Your task to perform on an android device: Search for Italian restaurants on Maps Image 0: 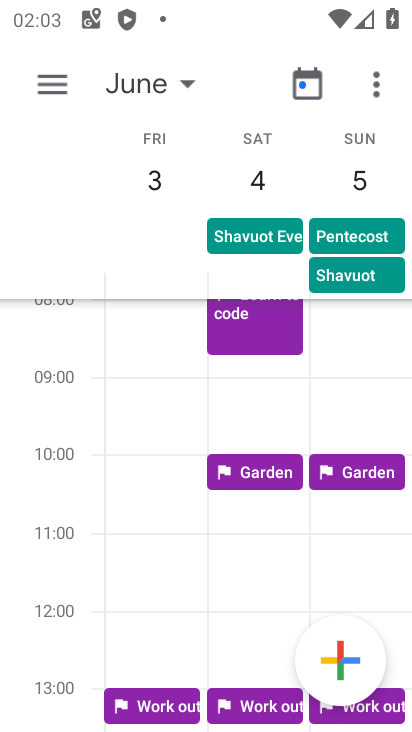
Step 0: press home button
Your task to perform on an android device: Search for Italian restaurants on Maps Image 1: 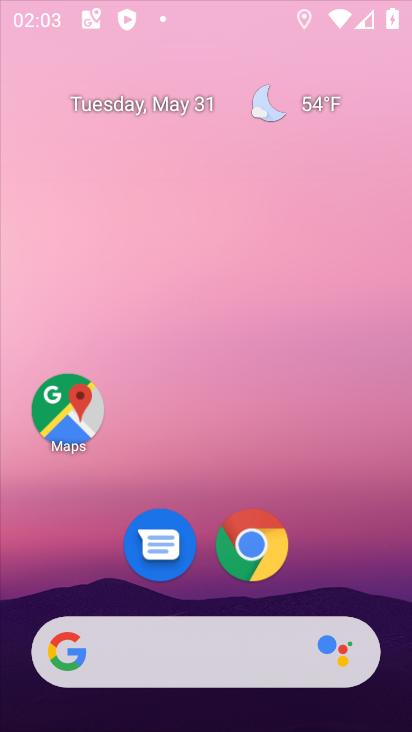
Step 1: press home button
Your task to perform on an android device: Search for Italian restaurants on Maps Image 2: 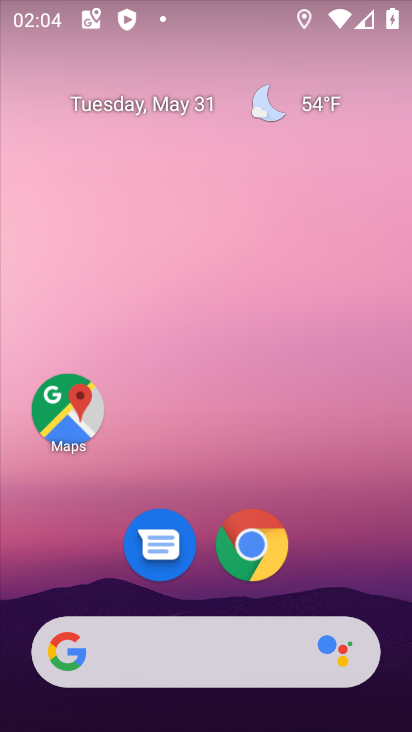
Step 2: click (61, 438)
Your task to perform on an android device: Search for Italian restaurants on Maps Image 3: 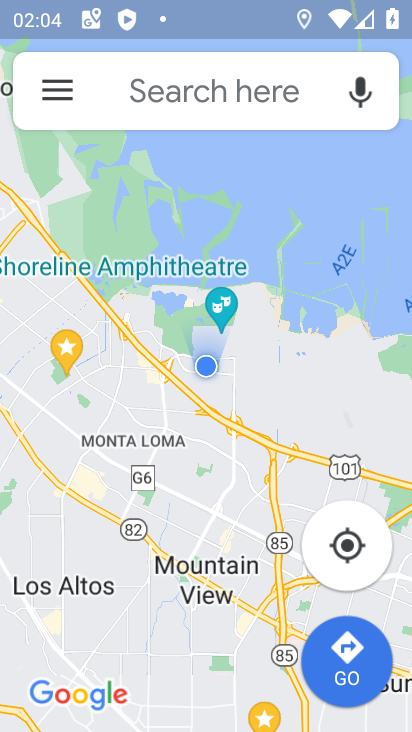
Step 3: click (205, 97)
Your task to perform on an android device: Search for Italian restaurants on Maps Image 4: 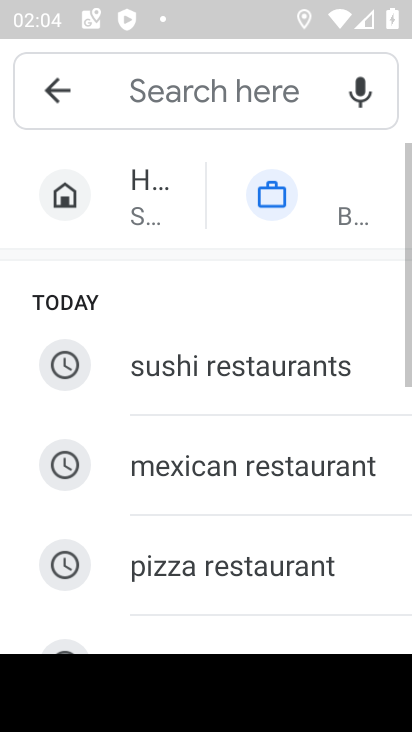
Step 4: drag from (298, 569) to (275, 218)
Your task to perform on an android device: Search for Italian restaurants on Maps Image 5: 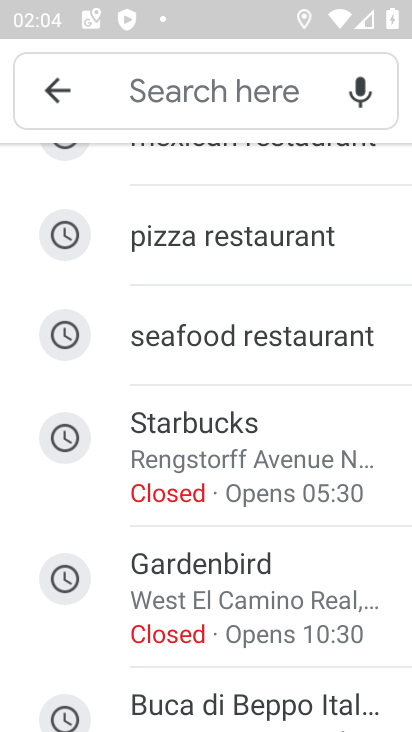
Step 5: click (235, 87)
Your task to perform on an android device: Search for Italian restaurants on Maps Image 6: 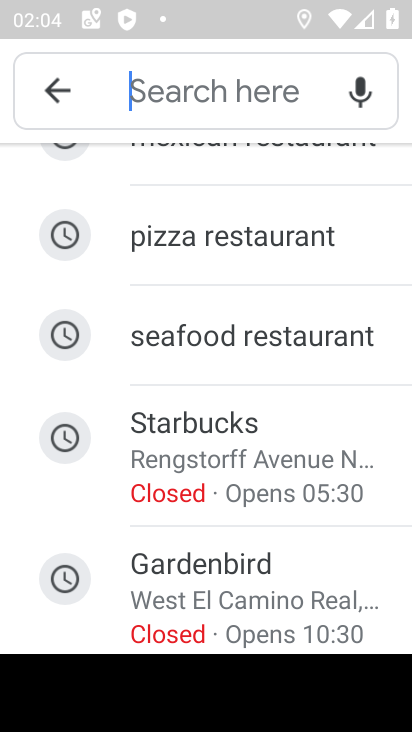
Step 6: type "italian"
Your task to perform on an android device: Search for Italian restaurants on Maps Image 7: 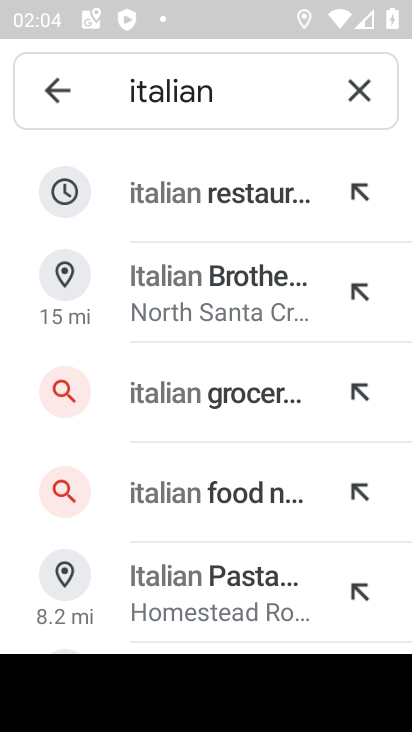
Step 7: click (251, 208)
Your task to perform on an android device: Search for Italian restaurants on Maps Image 8: 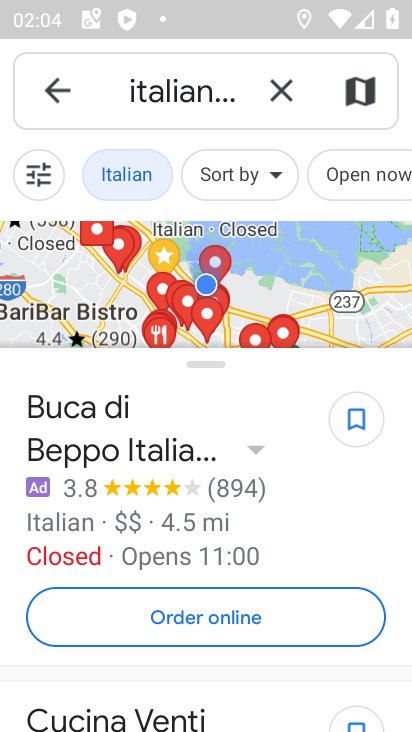
Step 8: task complete